Your task to perform on an android device: open app "Spotify" Image 0: 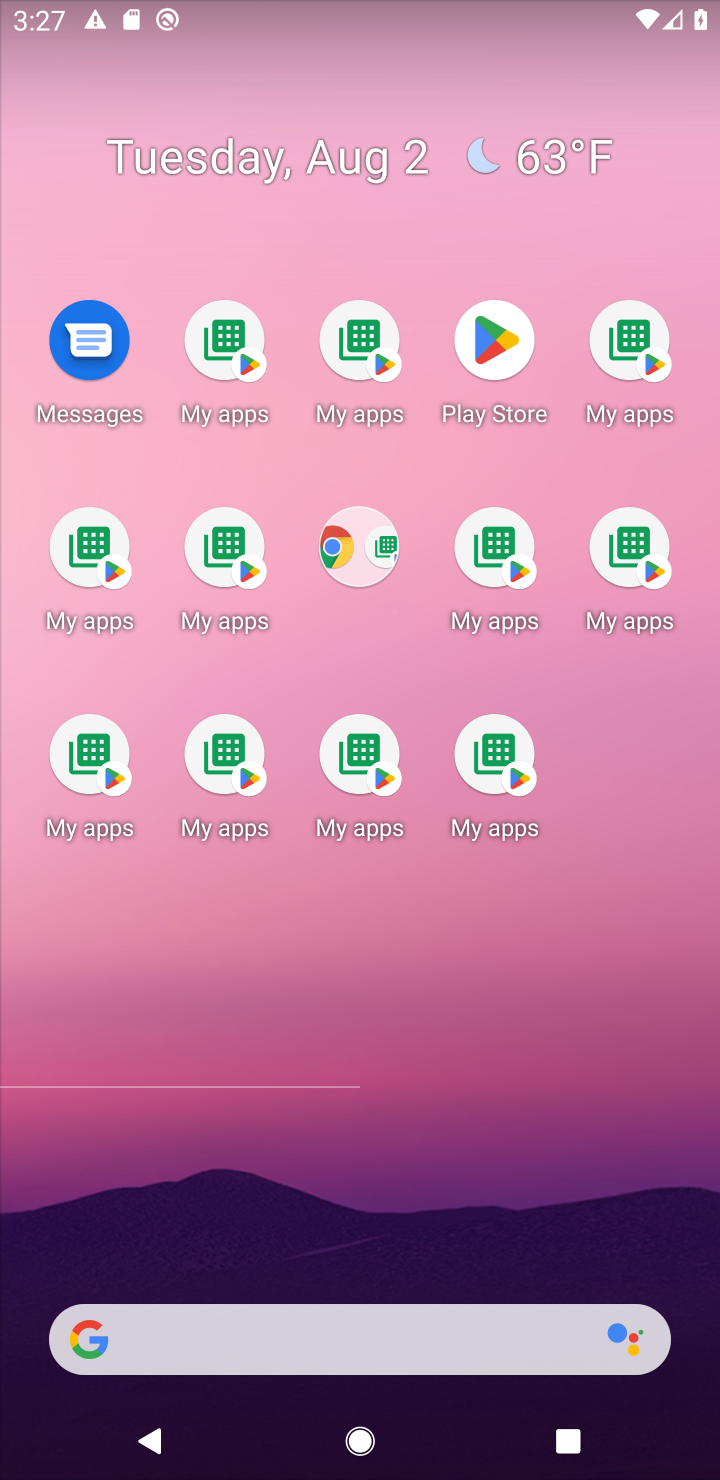
Step 0: press back button
Your task to perform on an android device: open app "Spotify" Image 1: 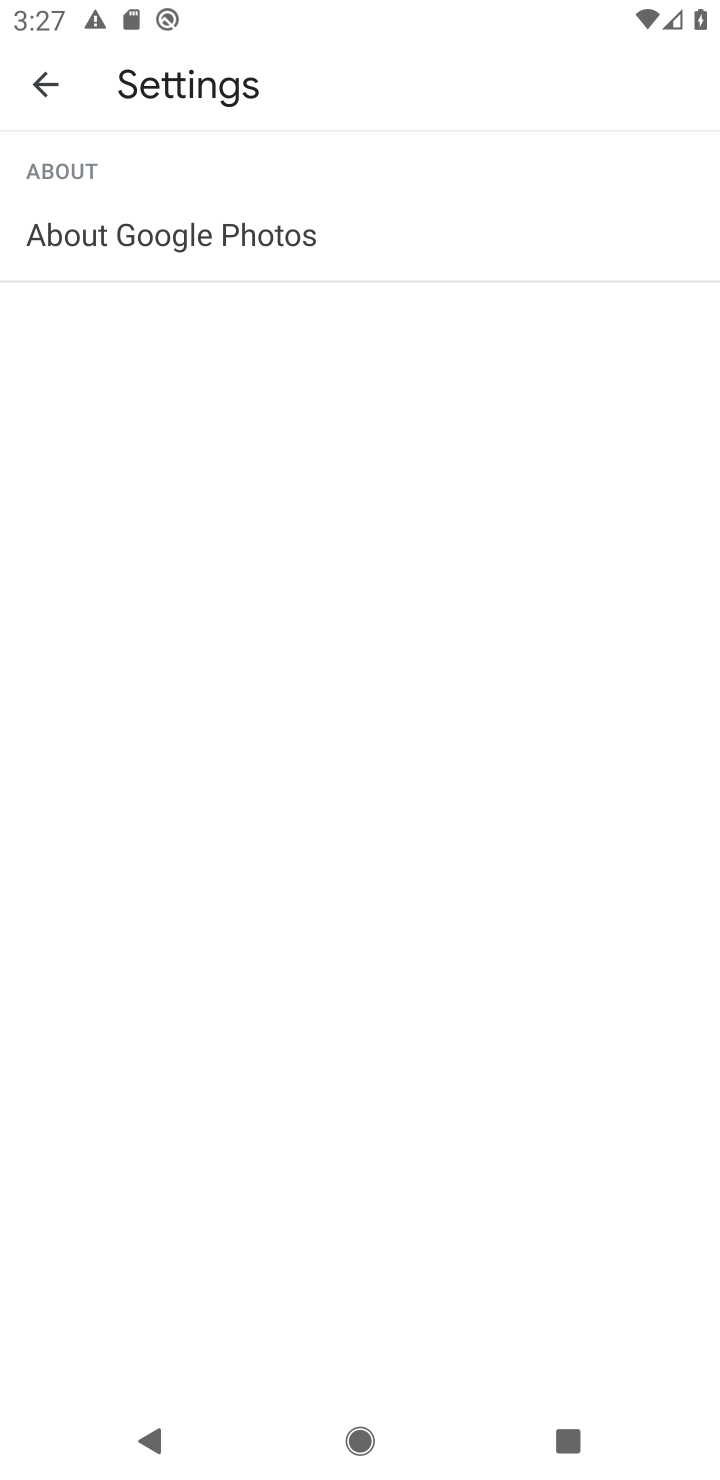
Step 1: press home button
Your task to perform on an android device: open app "Spotify" Image 2: 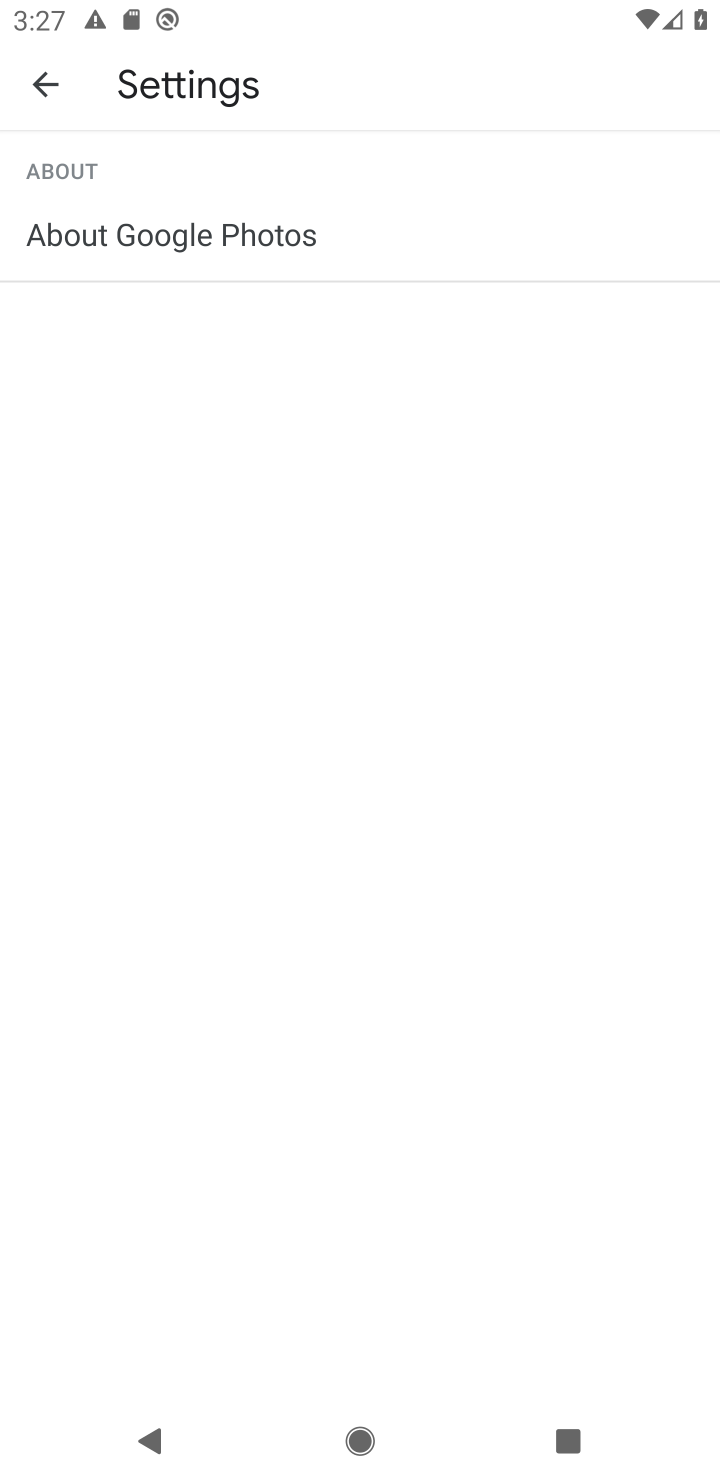
Step 2: click (532, 339)
Your task to perform on an android device: open app "Spotify" Image 3: 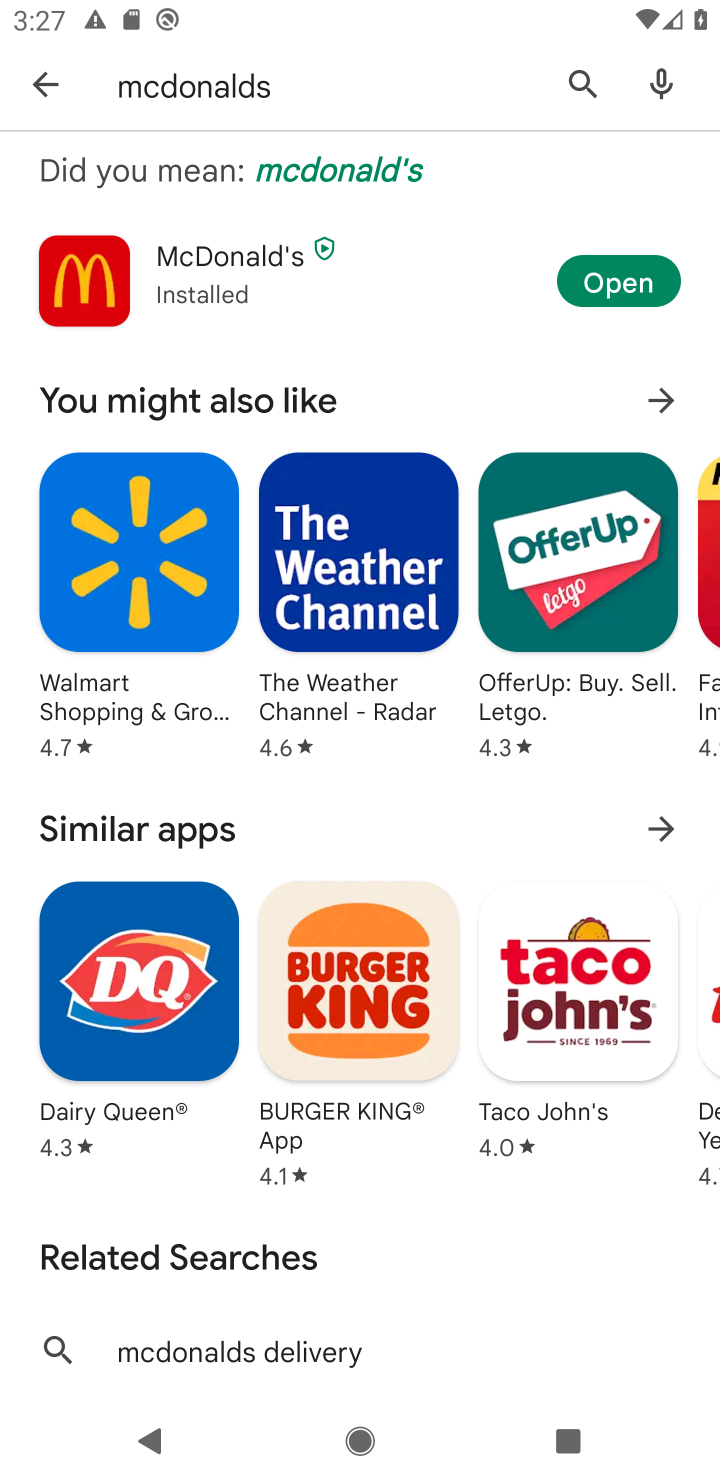
Step 3: click (620, 275)
Your task to perform on an android device: open app "Spotify" Image 4: 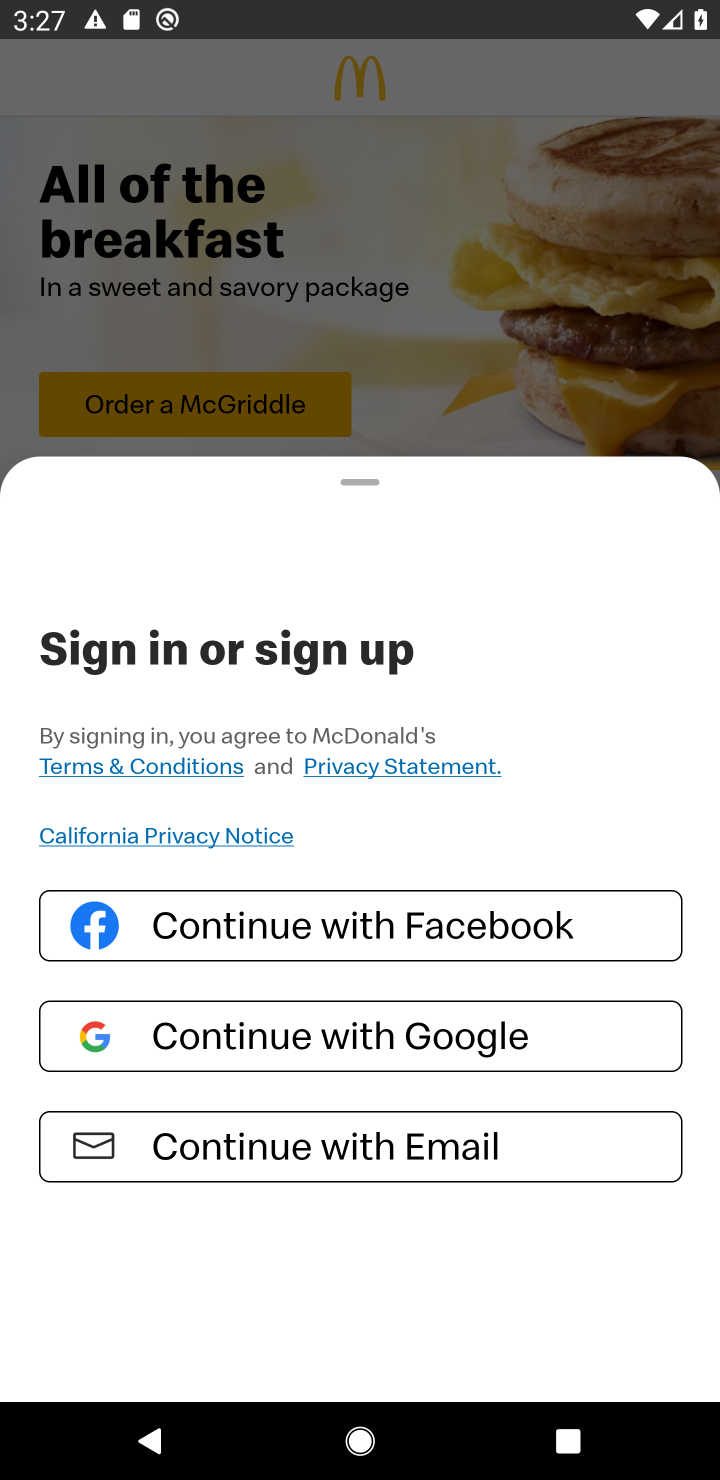
Step 4: click (485, 256)
Your task to perform on an android device: open app "Spotify" Image 5: 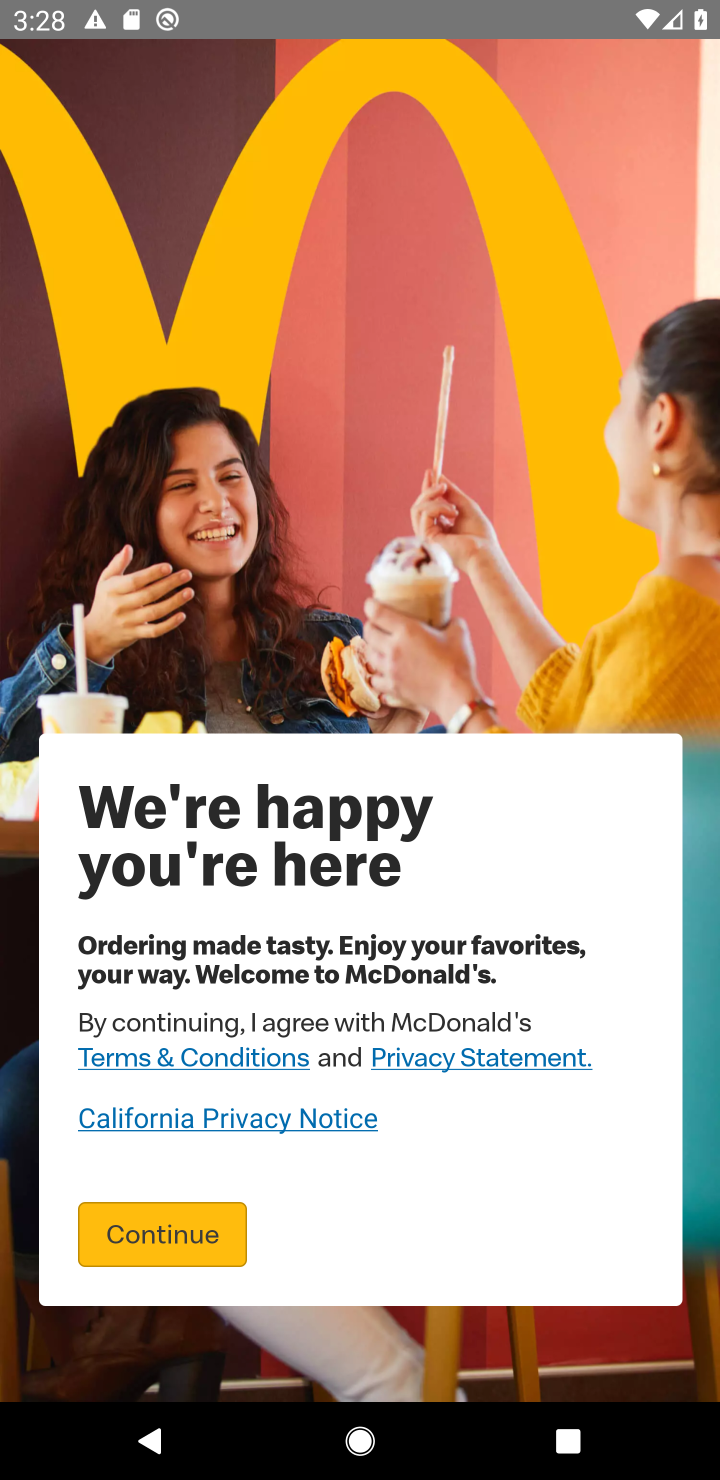
Step 5: click (156, 1205)
Your task to perform on an android device: open app "Spotify" Image 6: 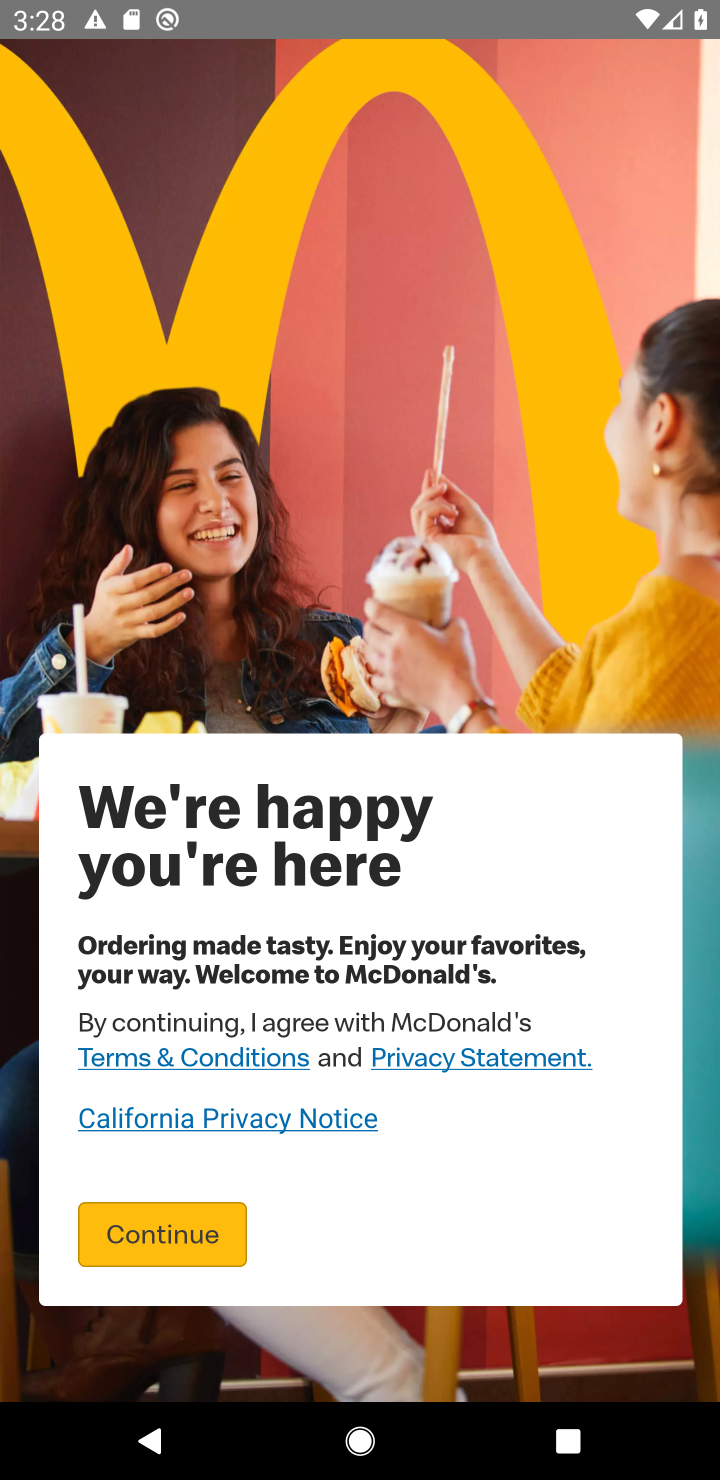
Step 6: click (296, 169)
Your task to perform on an android device: open app "Spotify" Image 7: 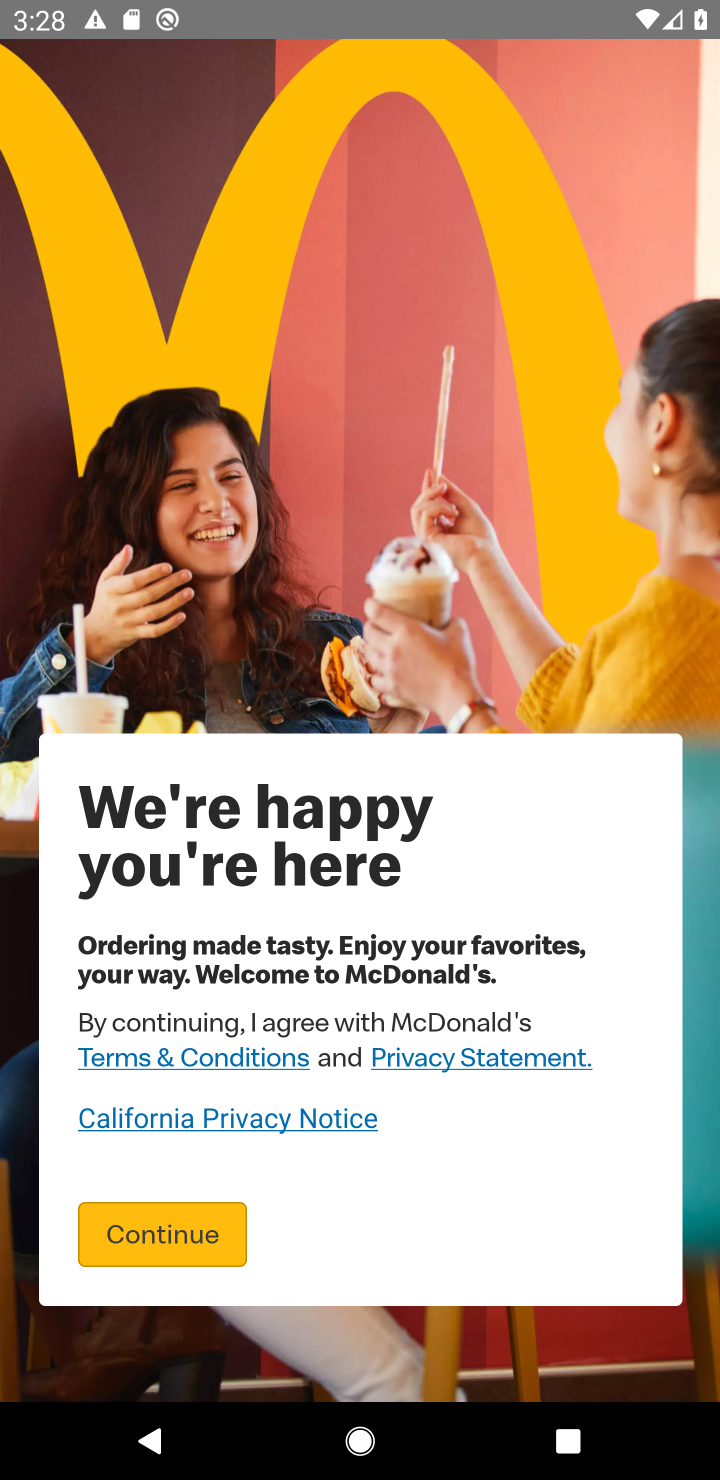
Step 7: press back button
Your task to perform on an android device: open app "Spotify" Image 8: 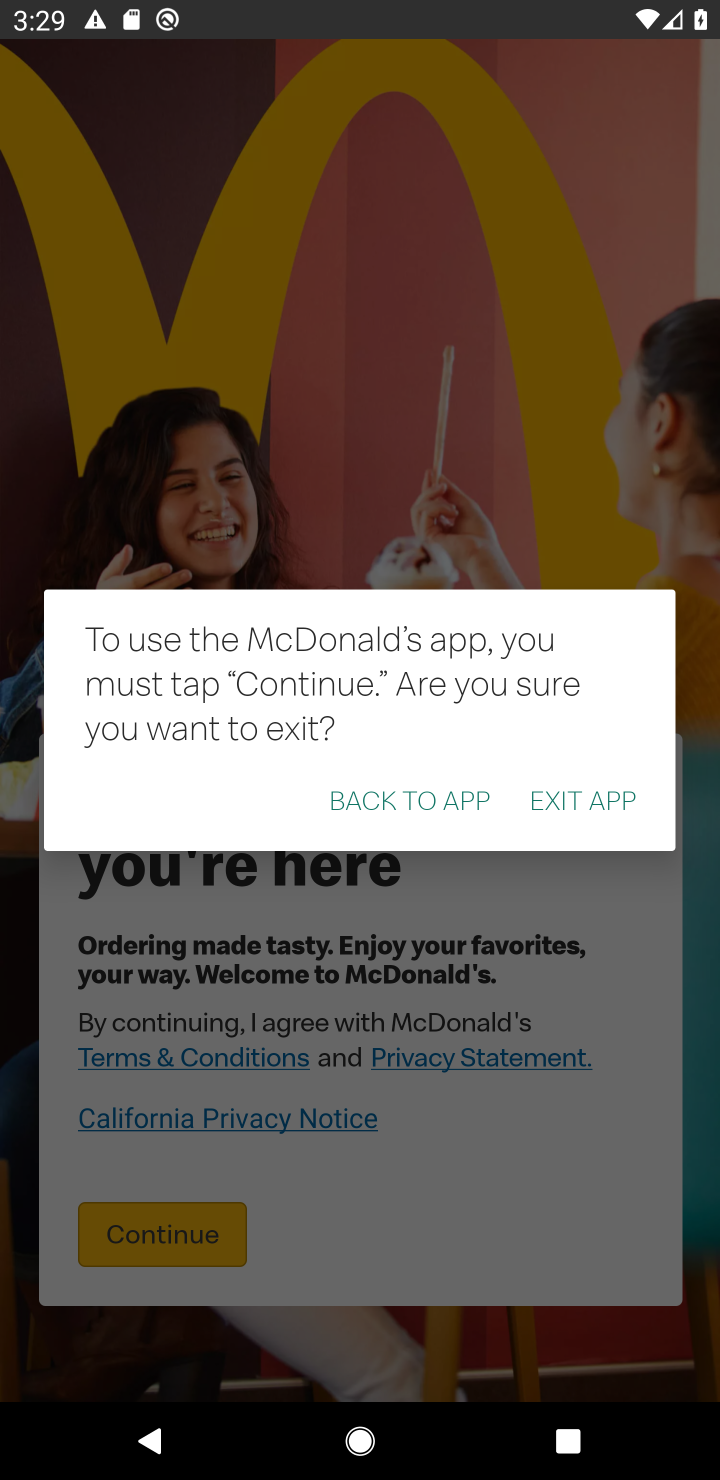
Step 8: drag from (419, 348) to (501, 316)
Your task to perform on an android device: open app "Spotify" Image 9: 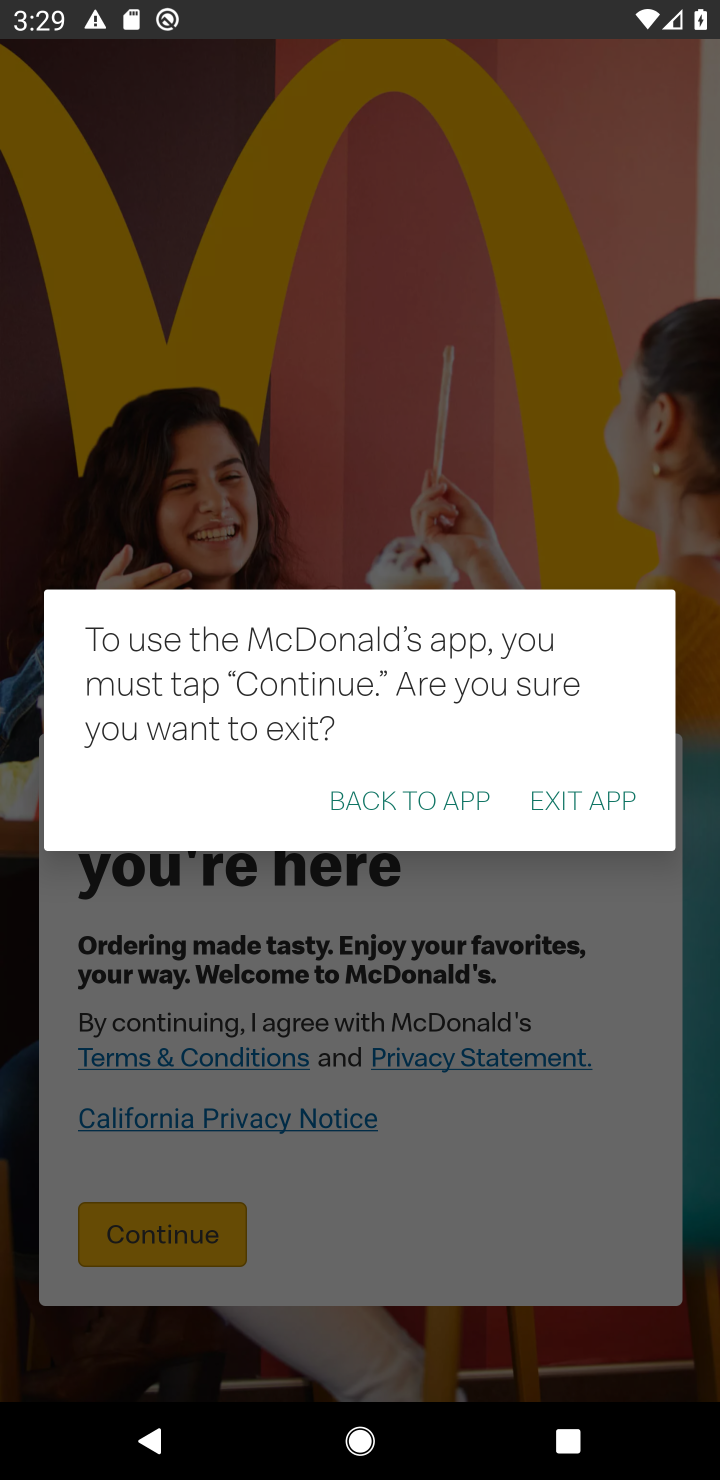
Step 9: click (214, 1176)
Your task to perform on an android device: open app "Spotify" Image 10: 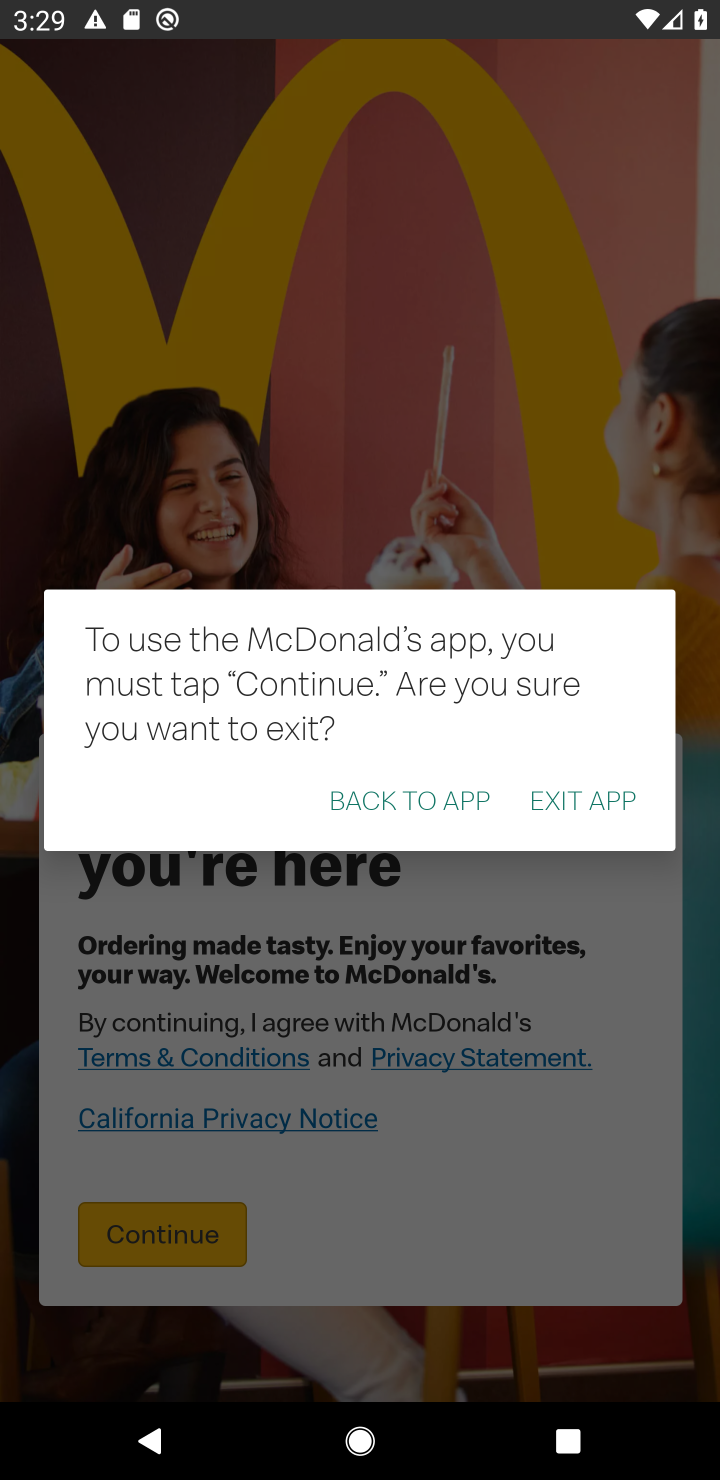
Step 10: click (476, 361)
Your task to perform on an android device: open app "Spotify" Image 11: 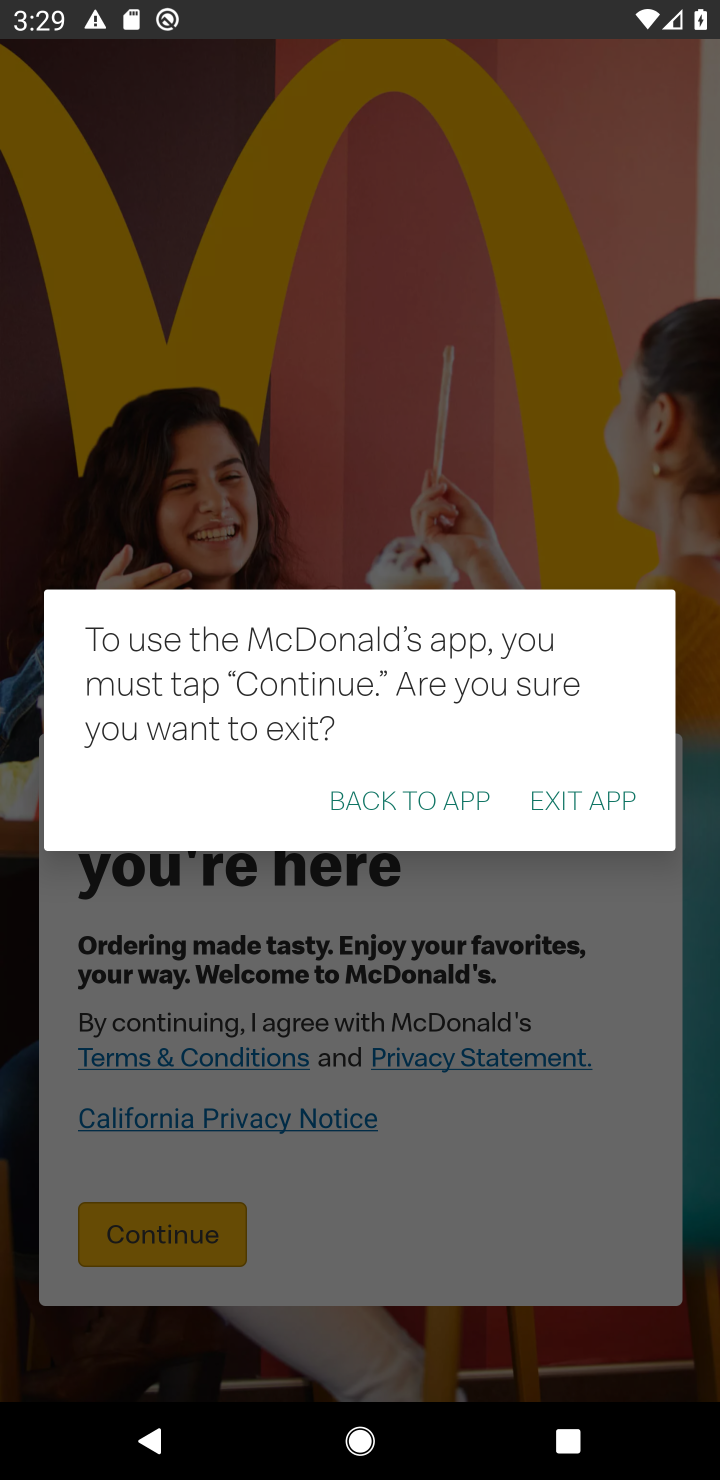
Step 11: task complete